Your task to perform on an android device: Do I have any events this weekend? Image 0: 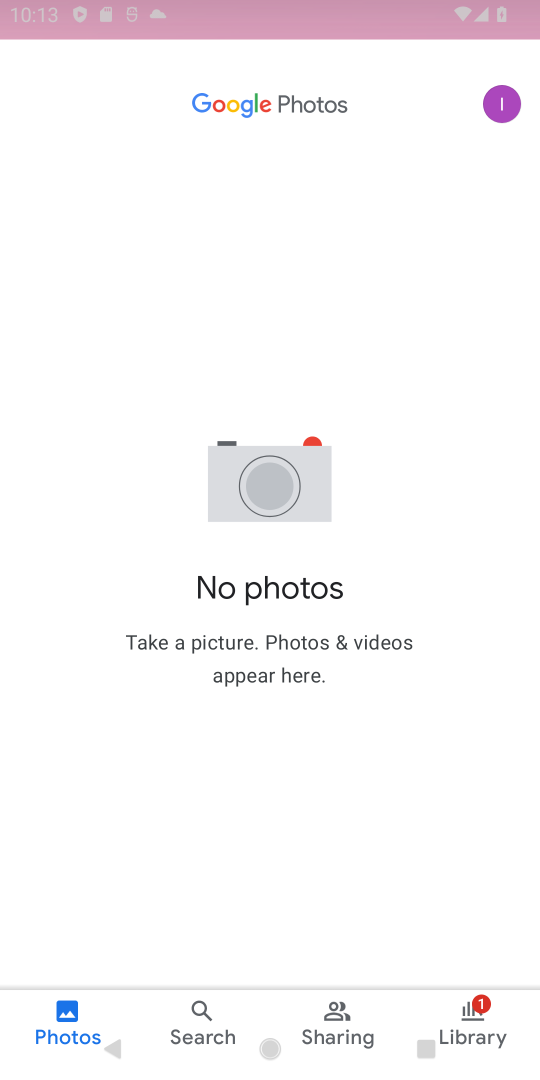
Step 0: press home button
Your task to perform on an android device: Do I have any events this weekend? Image 1: 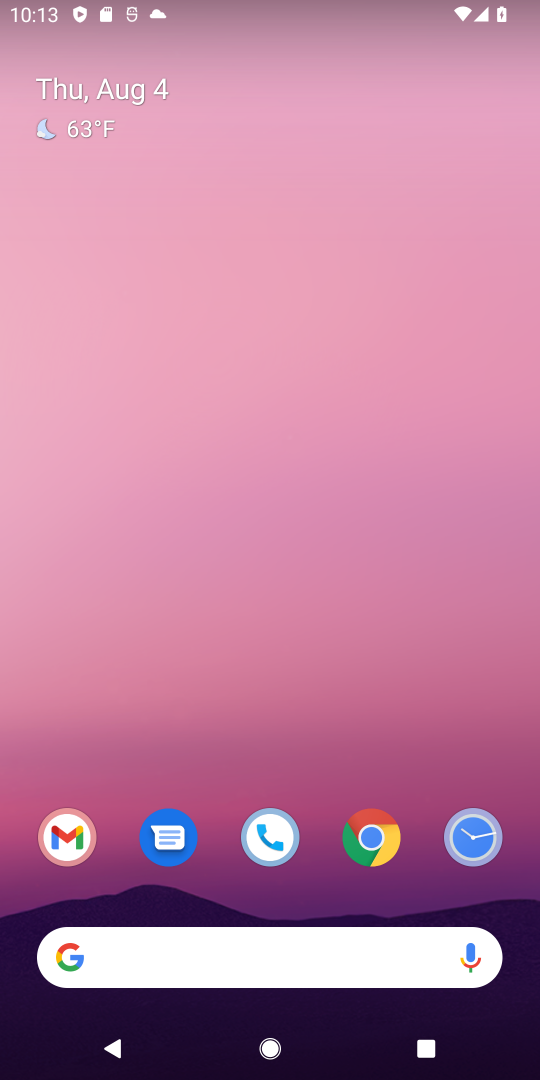
Step 1: press home button
Your task to perform on an android device: Do I have any events this weekend? Image 2: 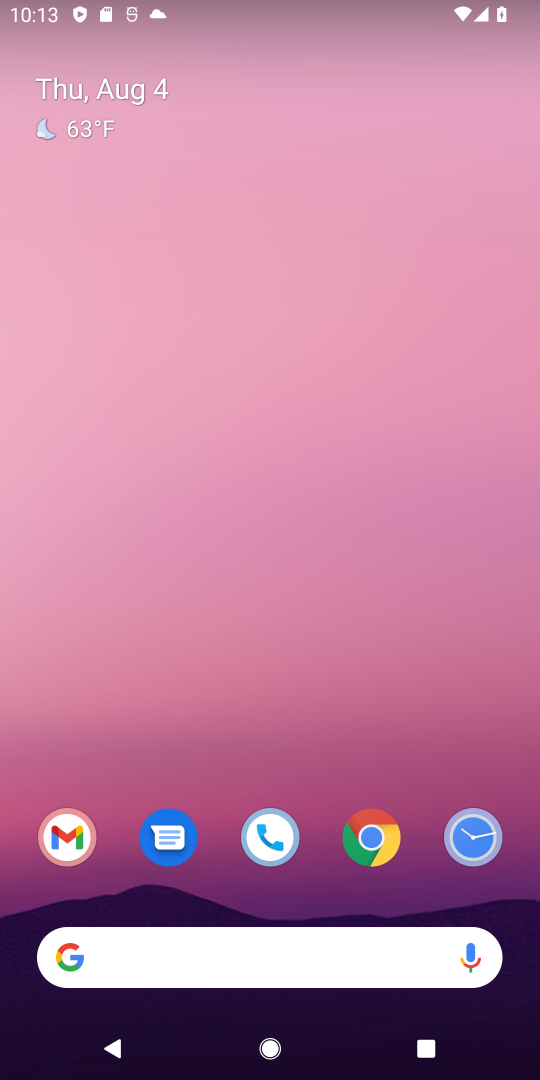
Step 2: drag from (309, 802) to (288, 0)
Your task to perform on an android device: Do I have any events this weekend? Image 3: 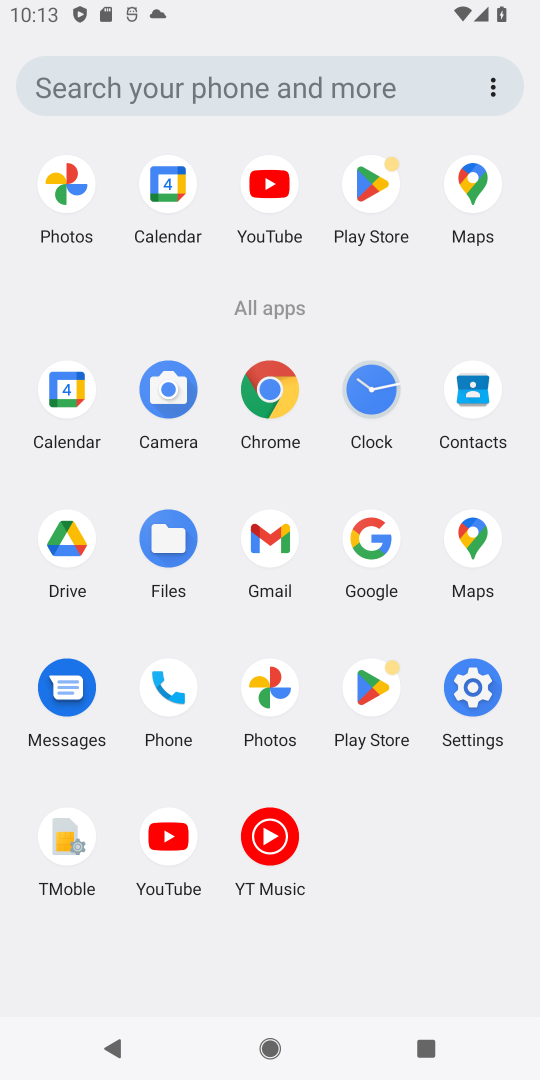
Step 3: click (63, 387)
Your task to perform on an android device: Do I have any events this weekend? Image 4: 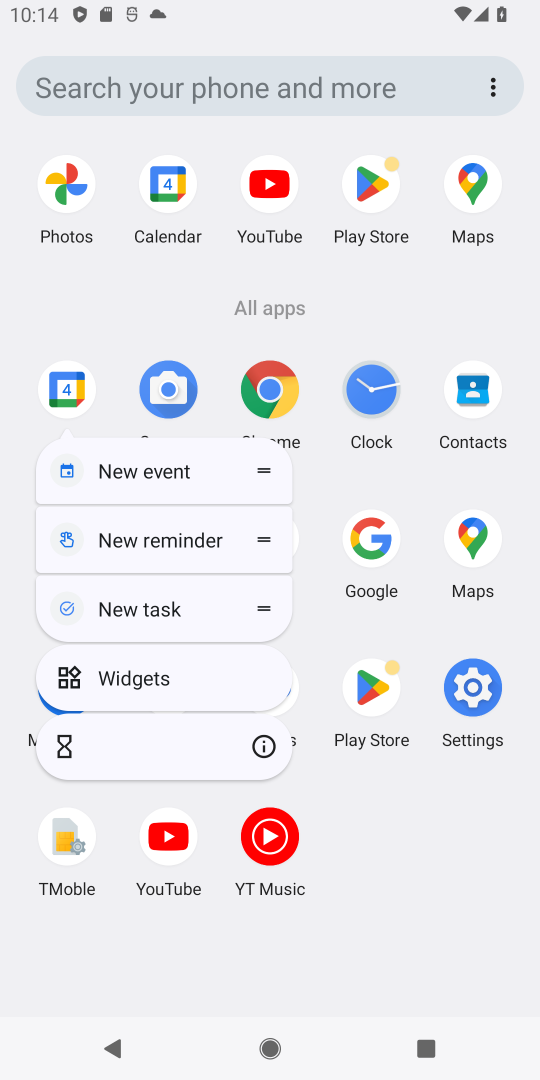
Step 4: click (54, 376)
Your task to perform on an android device: Do I have any events this weekend? Image 5: 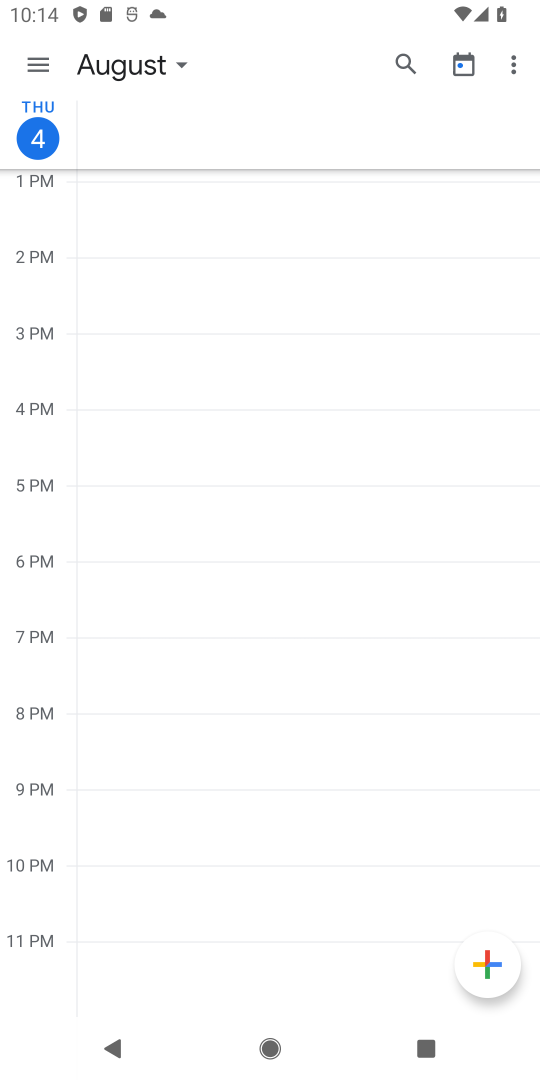
Step 5: click (42, 137)
Your task to perform on an android device: Do I have any events this weekend? Image 6: 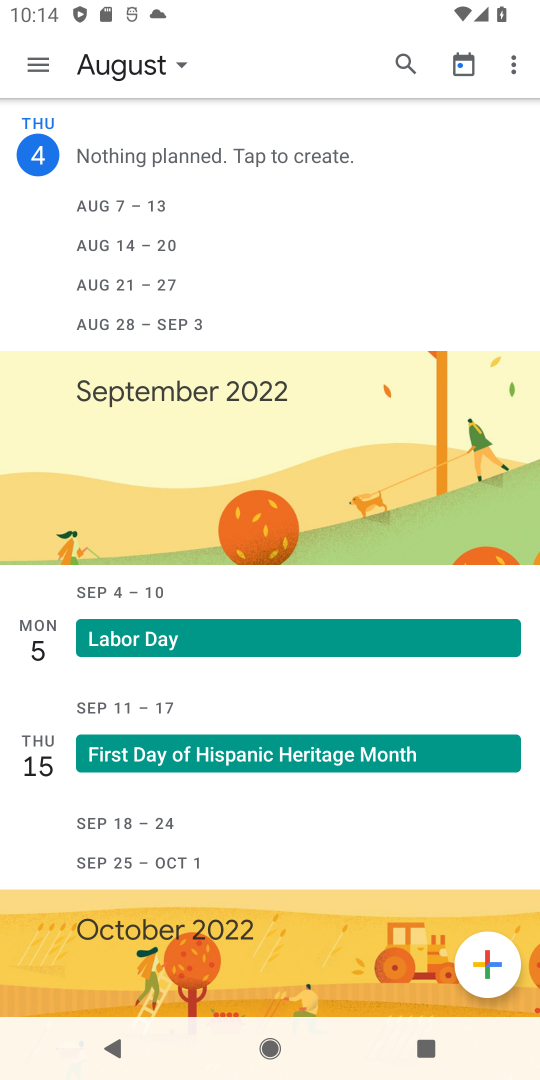
Step 6: click (23, 60)
Your task to perform on an android device: Do I have any events this weekend? Image 7: 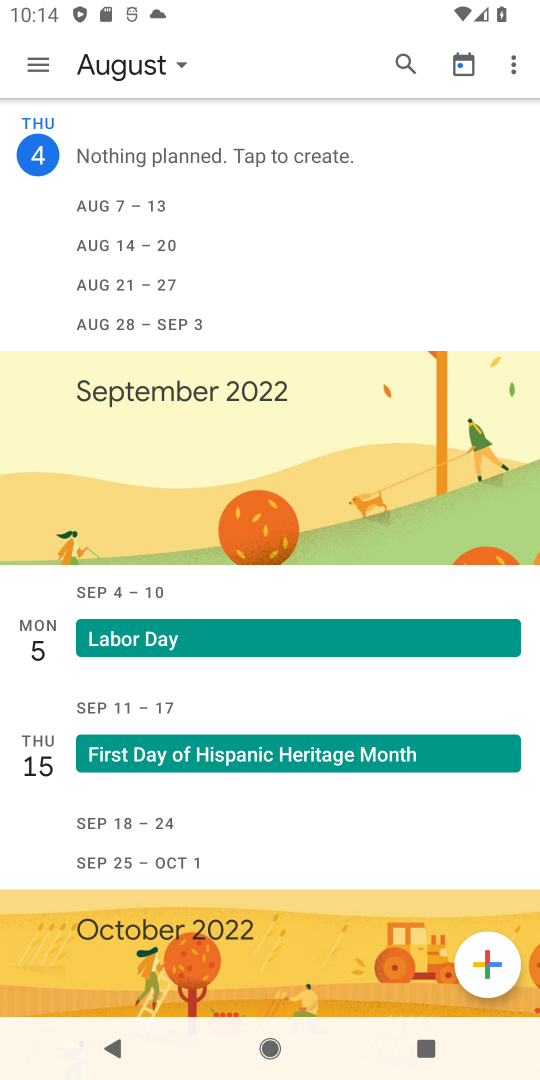
Step 7: click (28, 58)
Your task to perform on an android device: Do I have any events this weekend? Image 8: 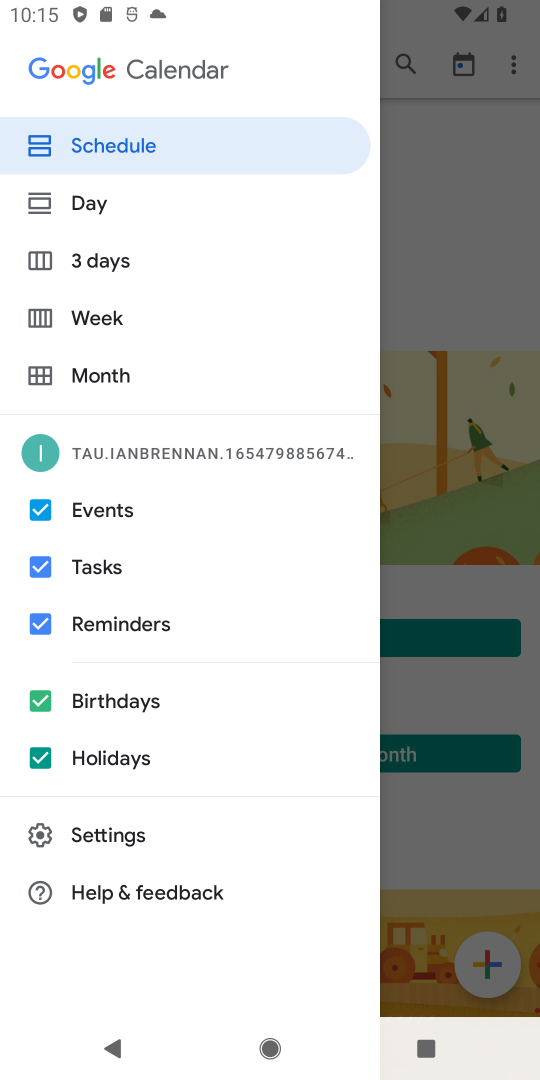
Step 8: click (37, 626)
Your task to perform on an android device: Do I have any events this weekend? Image 9: 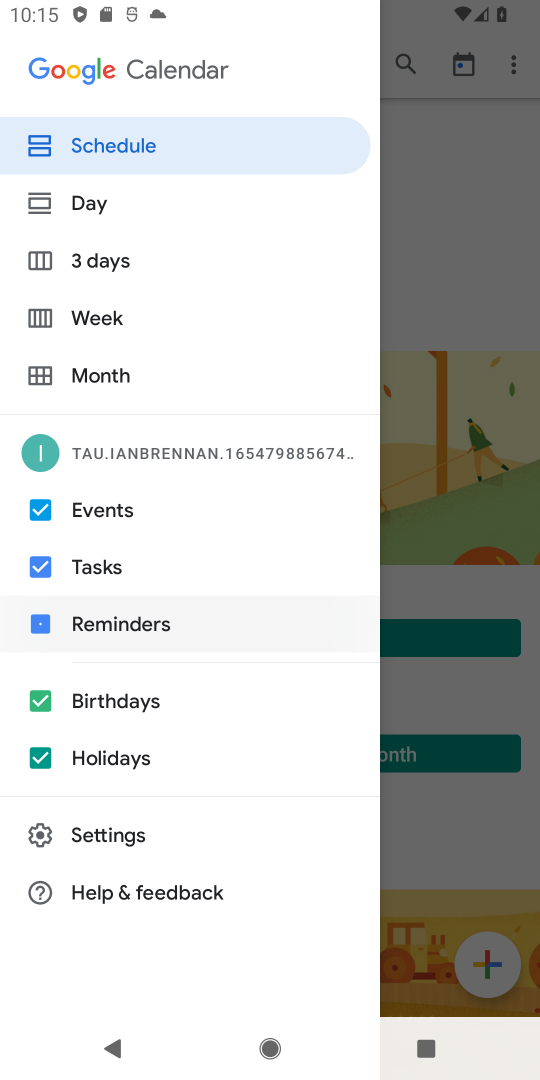
Step 9: click (44, 697)
Your task to perform on an android device: Do I have any events this weekend? Image 10: 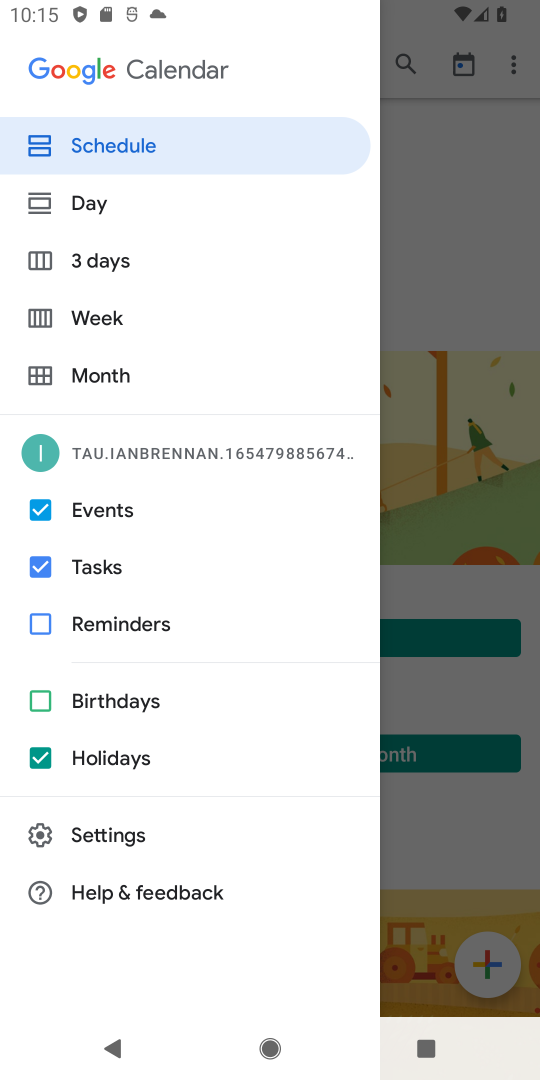
Step 10: click (33, 571)
Your task to perform on an android device: Do I have any events this weekend? Image 11: 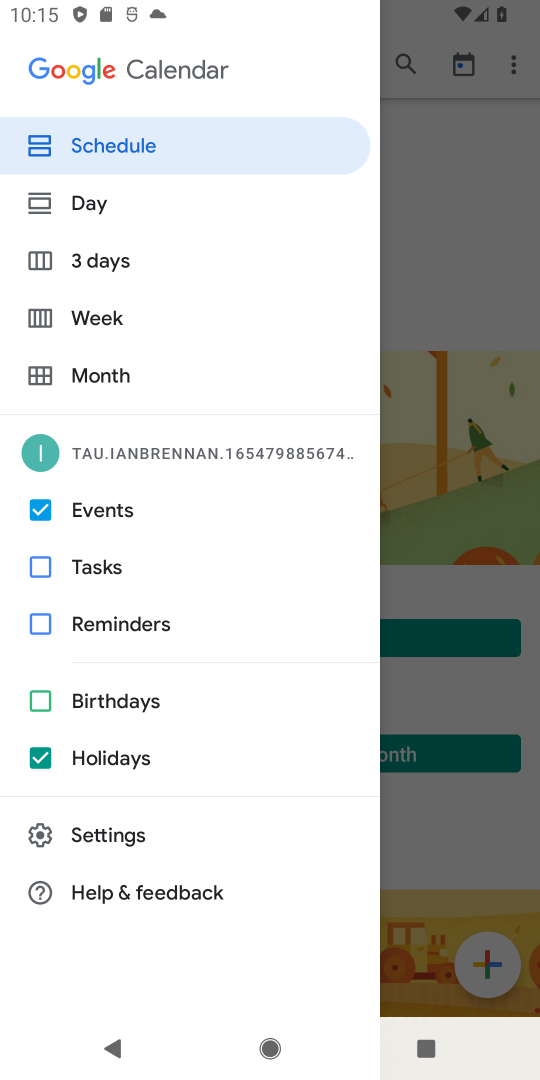
Step 11: click (52, 757)
Your task to perform on an android device: Do I have any events this weekend? Image 12: 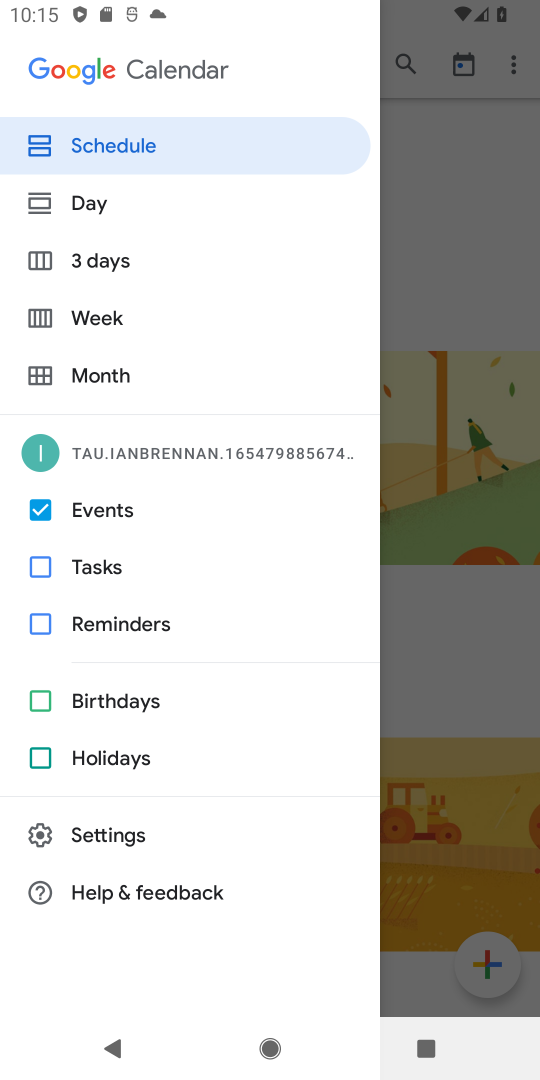
Step 12: click (103, 325)
Your task to perform on an android device: Do I have any events this weekend? Image 13: 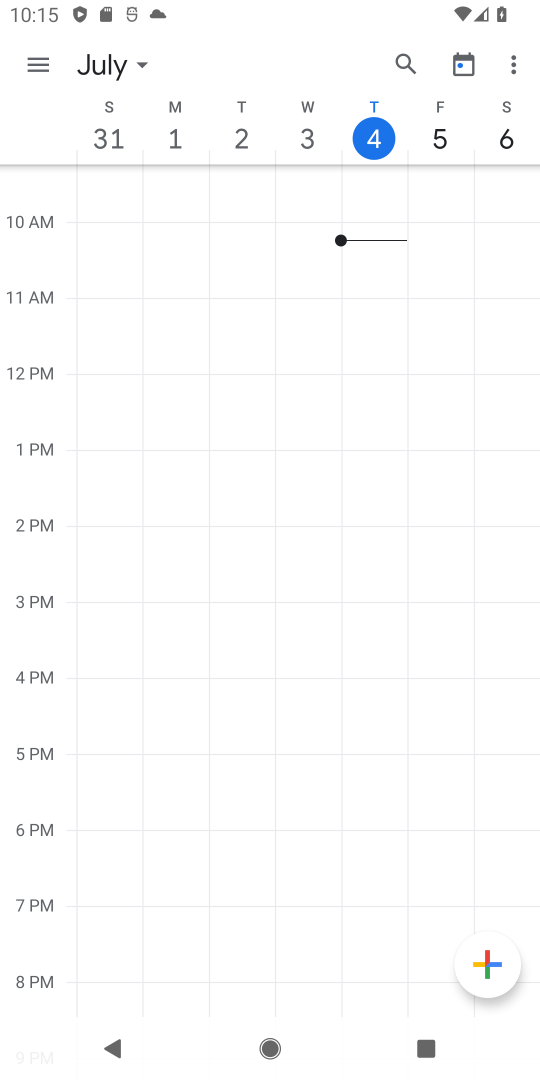
Step 13: drag from (466, 139) to (414, 140)
Your task to perform on an android device: Do I have any events this weekend? Image 14: 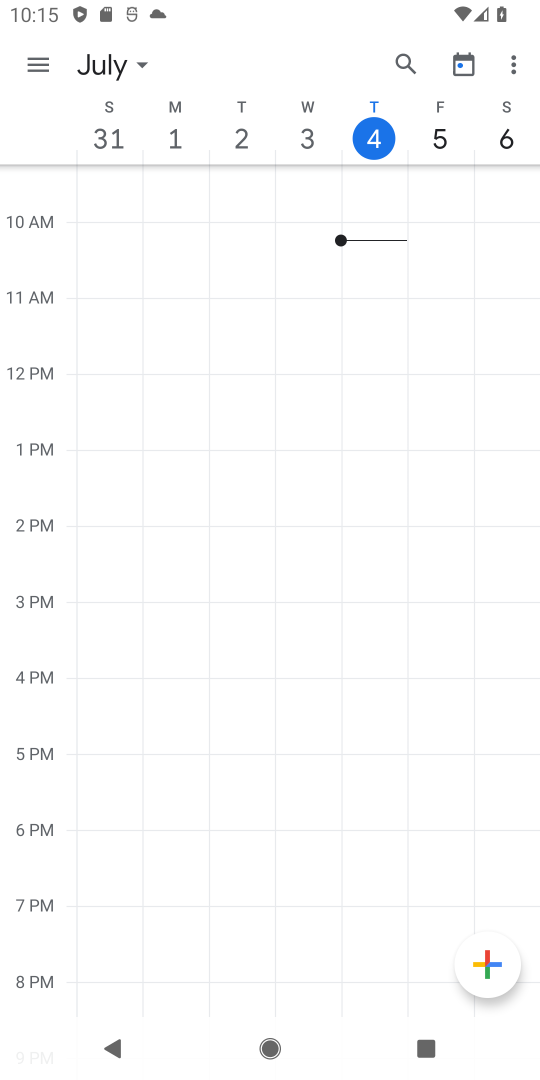
Step 14: click (372, 138)
Your task to perform on an android device: Do I have any events this weekend? Image 15: 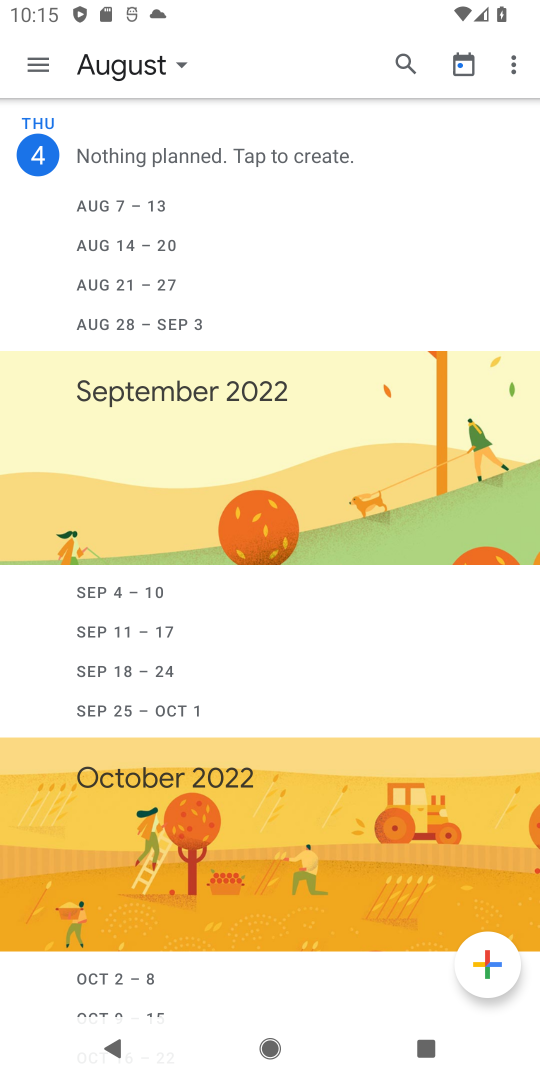
Step 15: task complete